Your task to perform on an android device: Open the calendar and show me this week's events? Image 0: 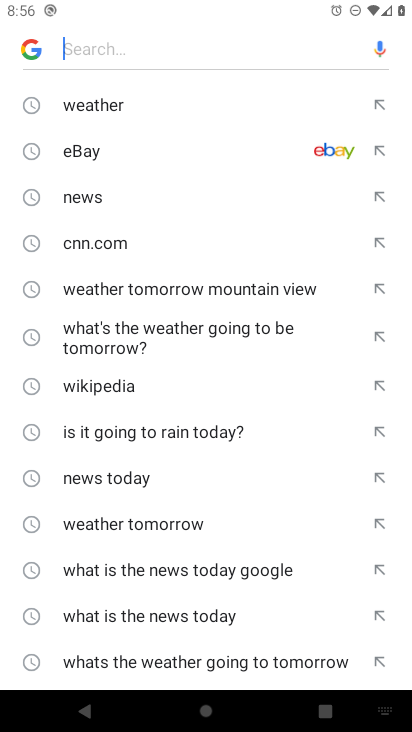
Step 0: press home button
Your task to perform on an android device: Open the calendar and show me this week's events? Image 1: 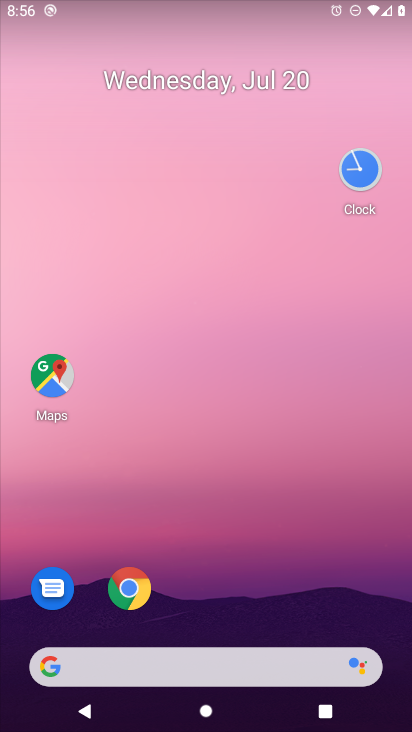
Step 1: drag from (86, 508) to (330, 48)
Your task to perform on an android device: Open the calendar and show me this week's events? Image 2: 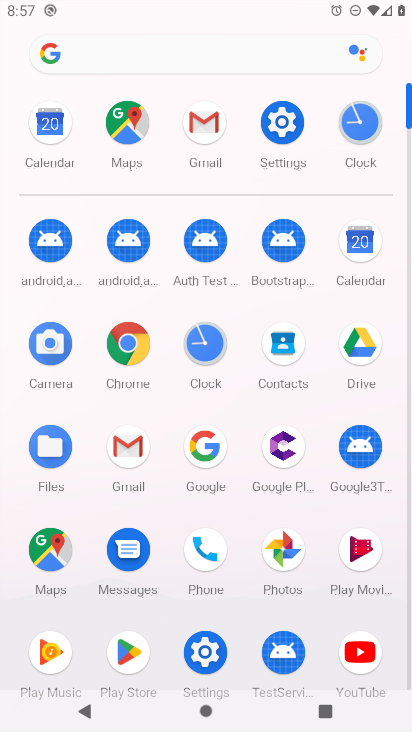
Step 2: click (357, 256)
Your task to perform on an android device: Open the calendar and show me this week's events? Image 3: 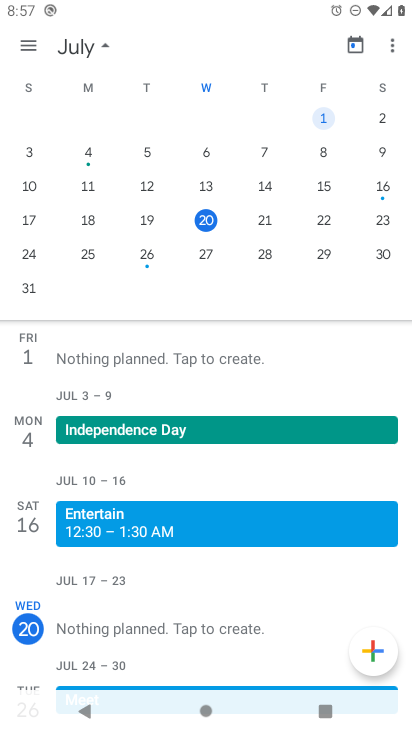
Step 3: task complete